Your task to perform on an android device: uninstall "McDonald's" Image 0: 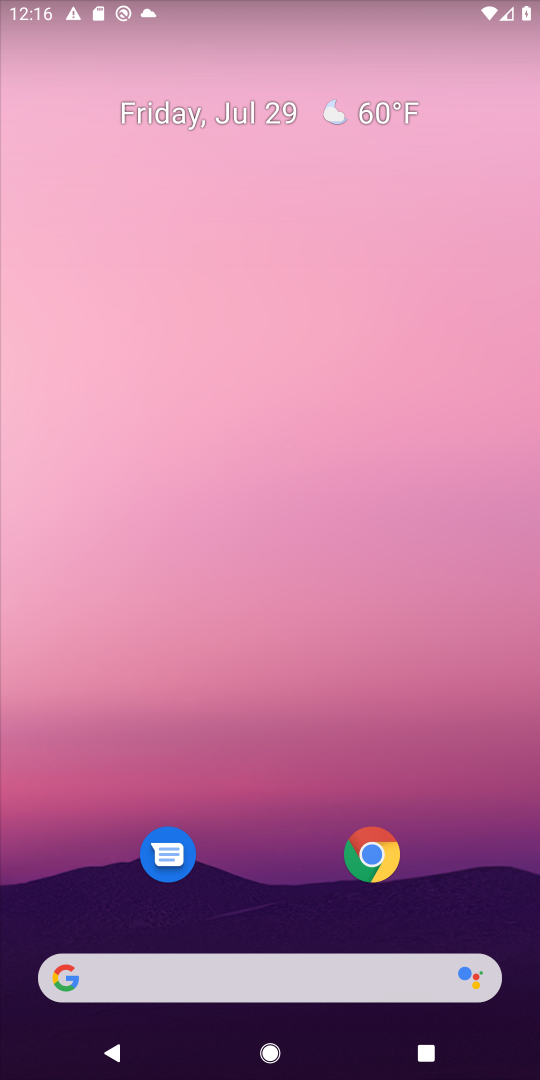
Step 0: drag from (266, 846) to (336, 20)
Your task to perform on an android device: uninstall "McDonald's" Image 1: 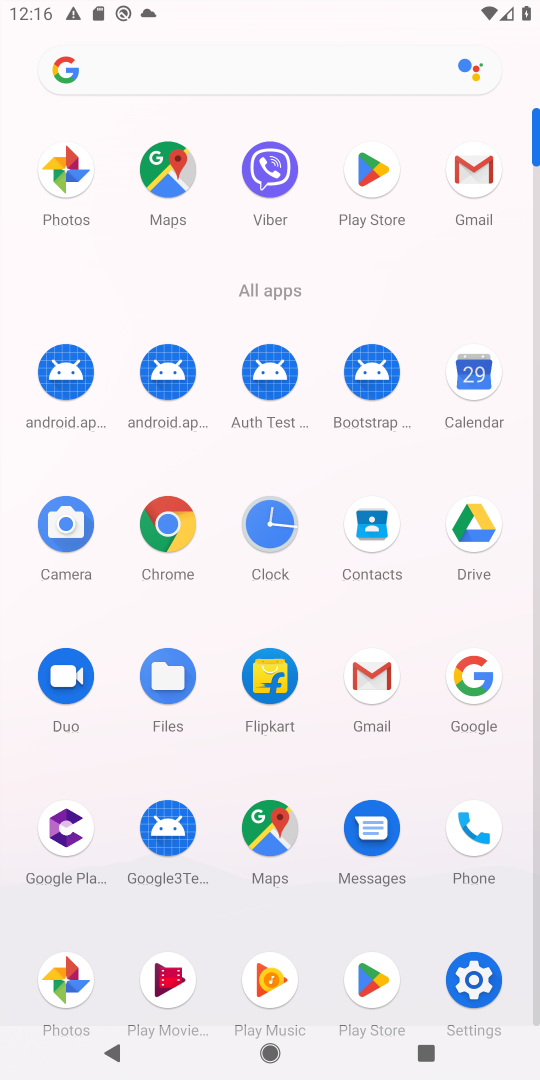
Step 1: click (373, 192)
Your task to perform on an android device: uninstall "McDonald's" Image 2: 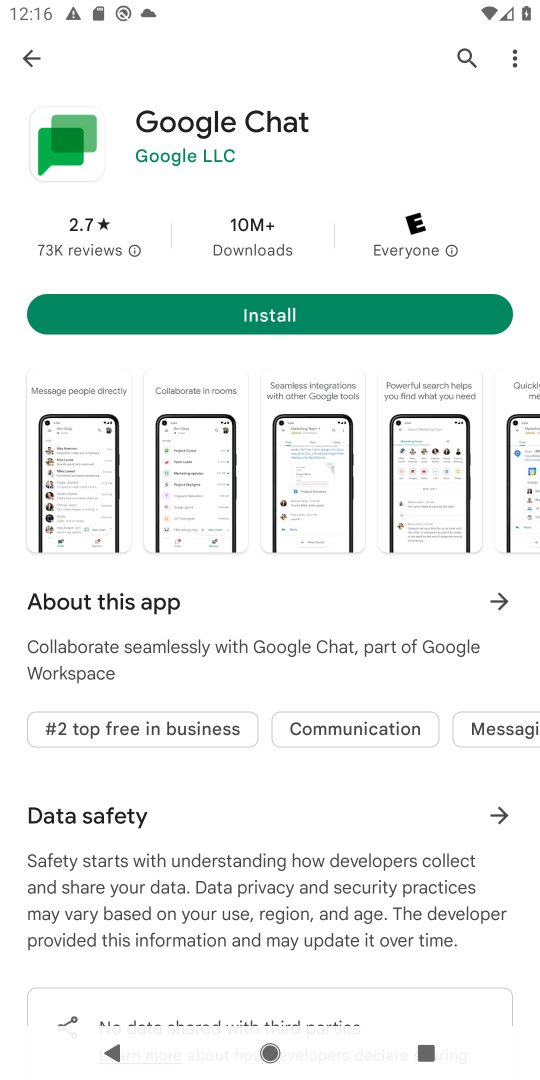
Step 2: click (460, 57)
Your task to perform on an android device: uninstall "McDonald's" Image 3: 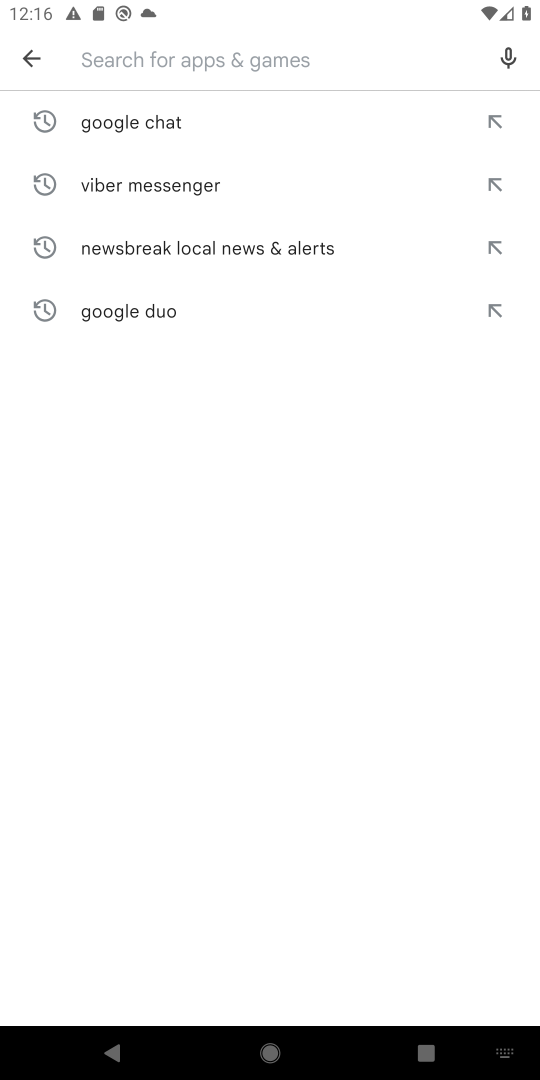
Step 3: type "McDonald's"
Your task to perform on an android device: uninstall "McDonald's" Image 4: 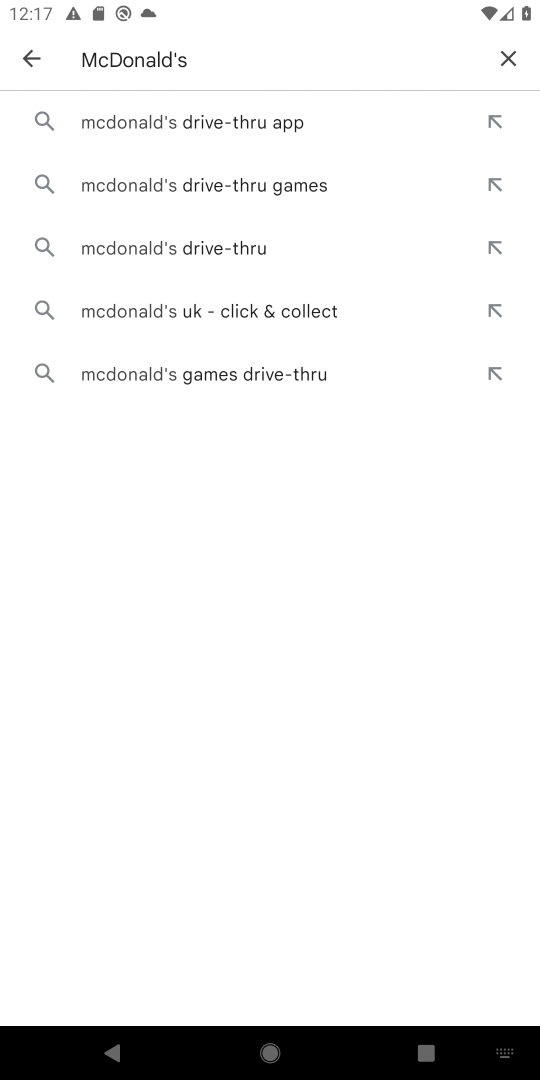
Step 4: click (215, 139)
Your task to perform on an android device: uninstall "McDonald's" Image 5: 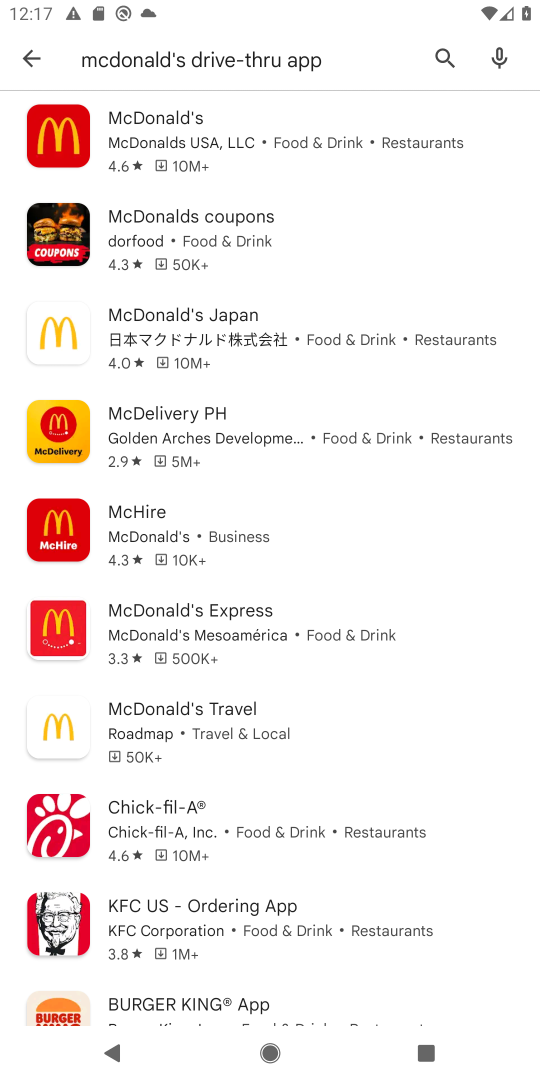
Step 5: click (169, 147)
Your task to perform on an android device: uninstall "McDonald's" Image 6: 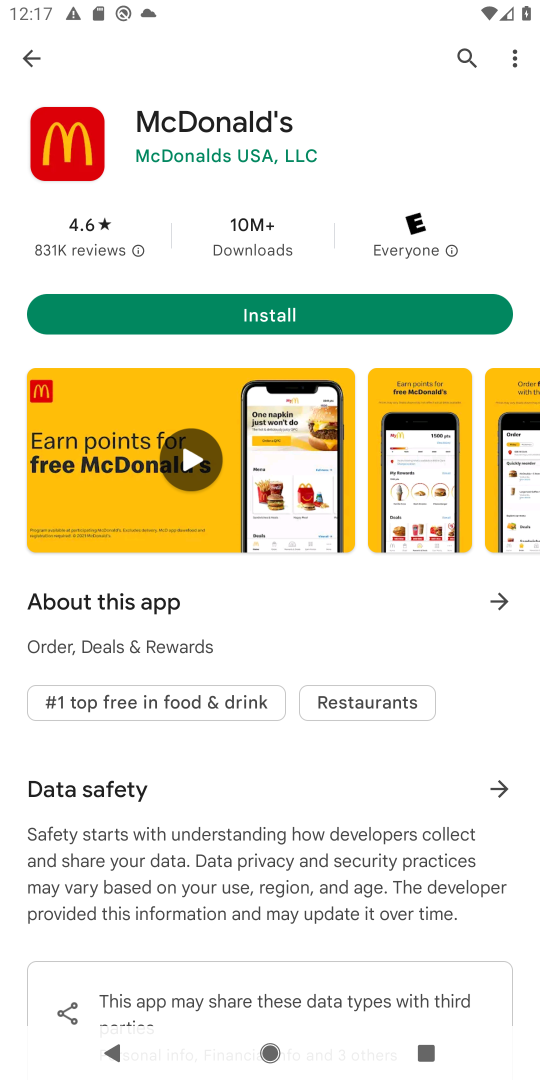
Step 6: task complete